Your task to perform on an android device: Go to wifi settings Image 0: 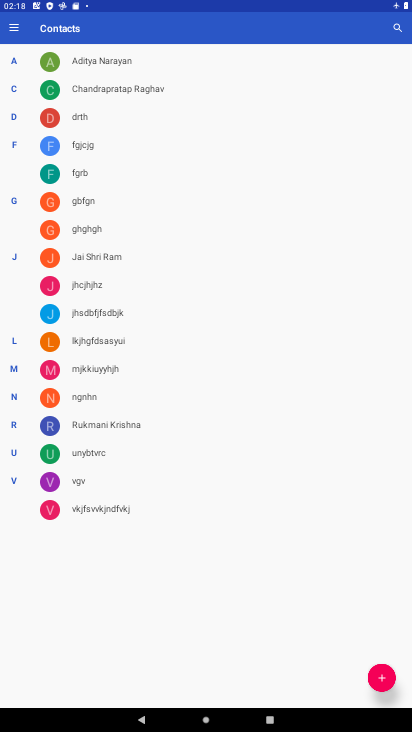
Step 0: press home button
Your task to perform on an android device: Go to wifi settings Image 1: 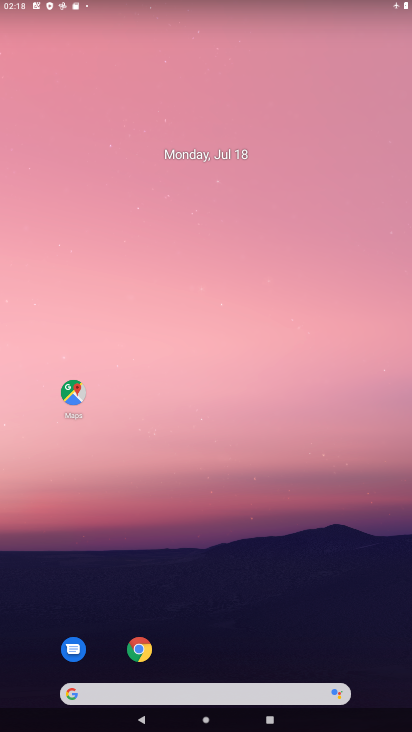
Step 1: drag from (158, 722) to (261, 83)
Your task to perform on an android device: Go to wifi settings Image 2: 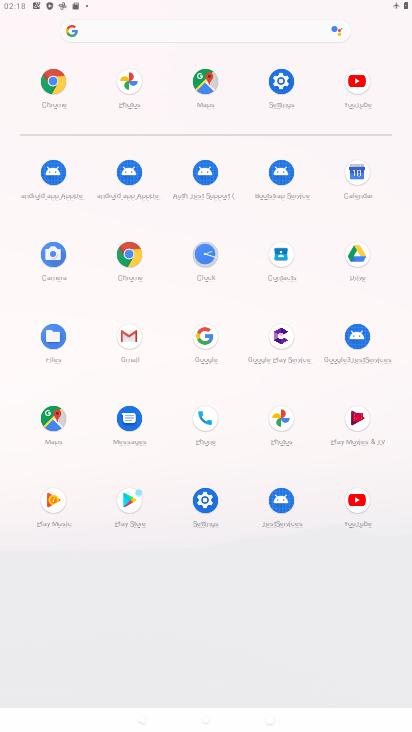
Step 2: click (271, 90)
Your task to perform on an android device: Go to wifi settings Image 3: 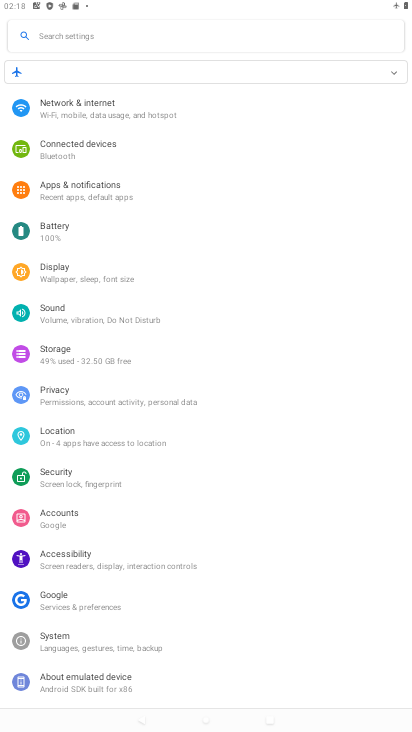
Step 3: click (218, 117)
Your task to perform on an android device: Go to wifi settings Image 4: 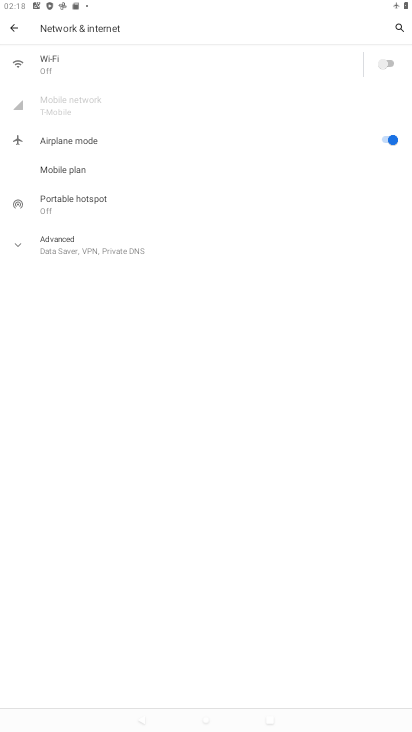
Step 4: click (100, 64)
Your task to perform on an android device: Go to wifi settings Image 5: 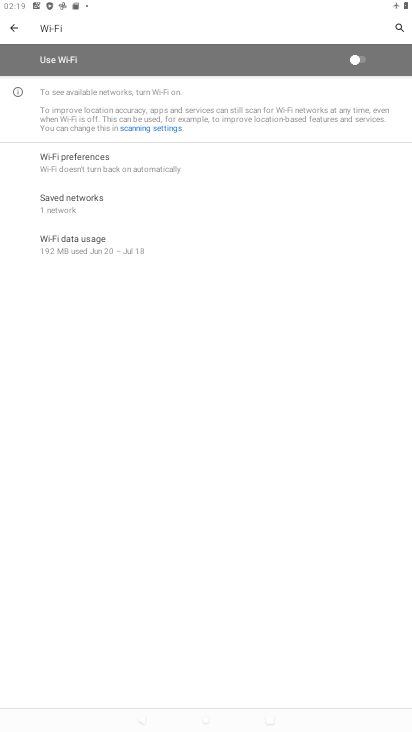
Step 5: task complete